Your task to perform on an android device: Open the calendar and show me this week's events? Image 0: 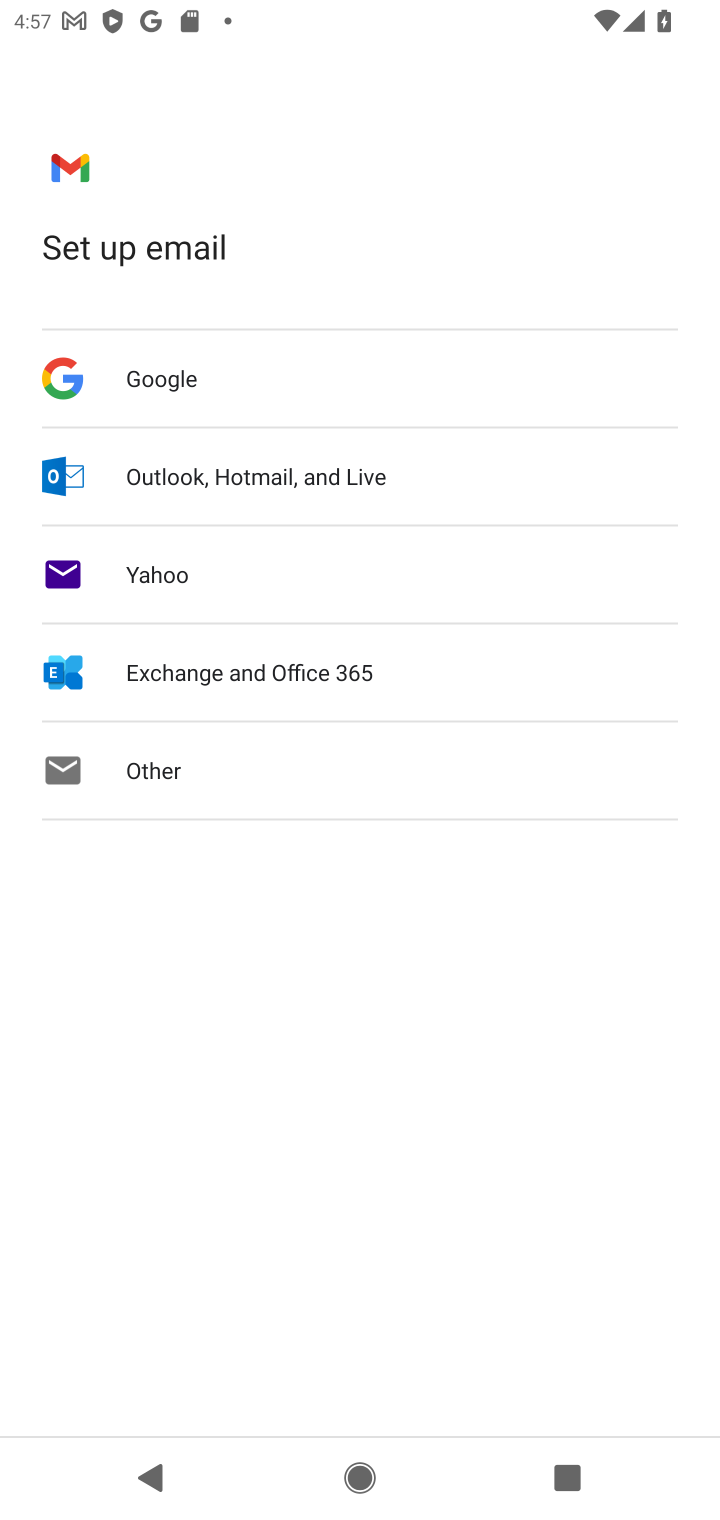
Step 0: task complete